Your task to perform on an android device: move an email to a new category in the gmail app Image 0: 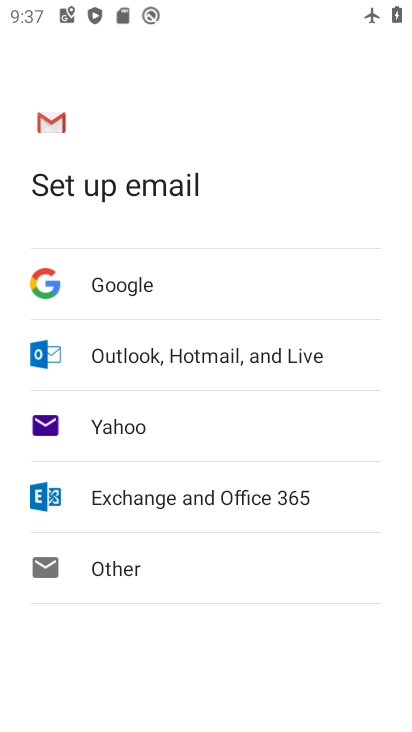
Step 0: press home button
Your task to perform on an android device: move an email to a new category in the gmail app Image 1: 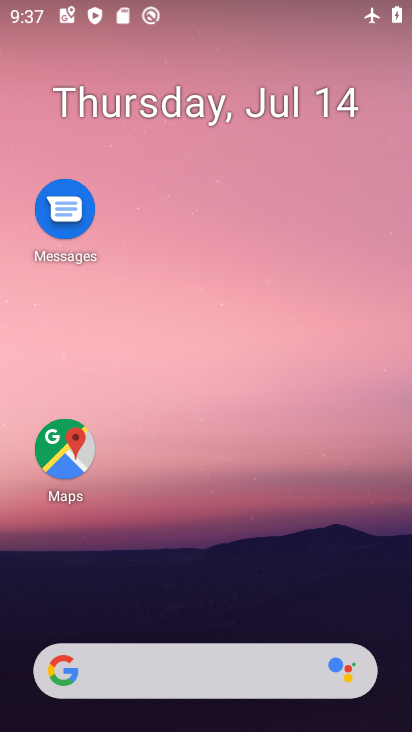
Step 1: drag from (187, 639) to (226, 24)
Your task to perform on an android device: move an email to a new category in the gmail app Image 2: 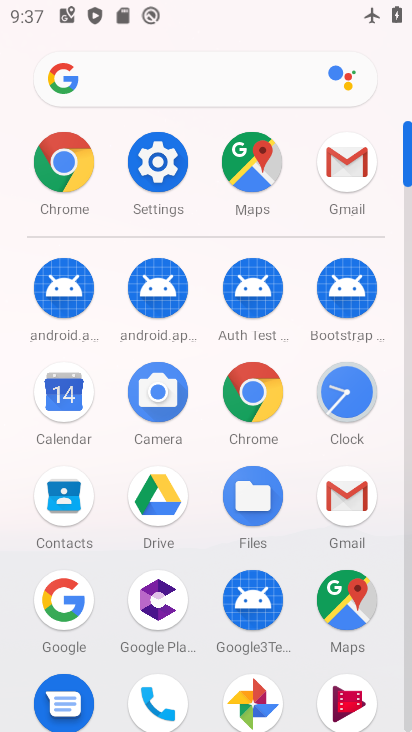
Step 2: click (344, 509)
Your task to perform on an android device: move an email to a new category in the gmail app Image 3: 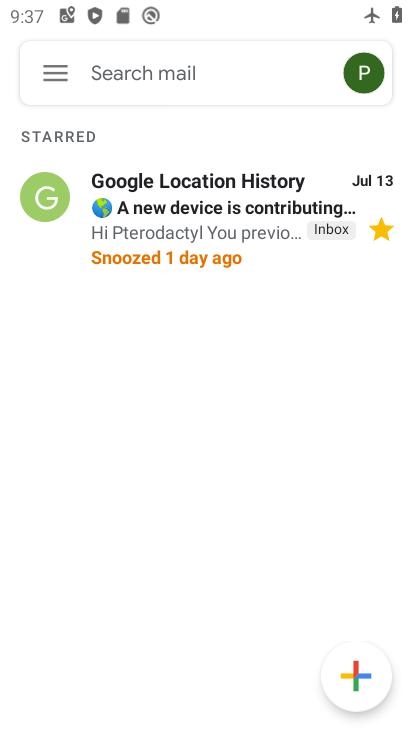
Step 3: click (179, 187)
Your task to perform on an android device: move an email to a new category in the gmail app Image 4: 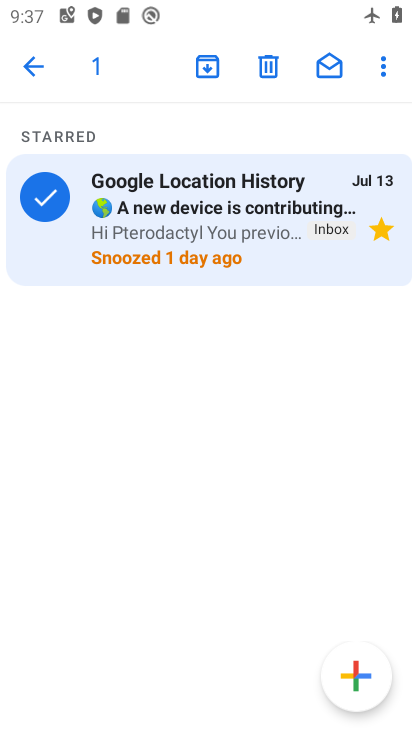
Step 4: click (381, 63)
Your task to perform on an android device: move an email to a new category in the gmail app Image 5: 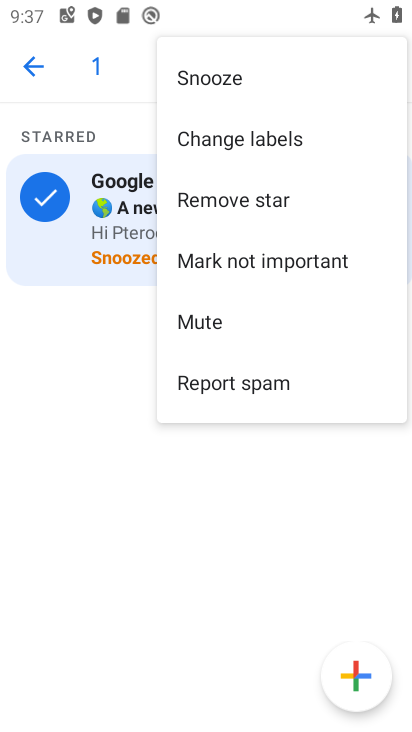
Step 5: click (279, 137)
Your task to perform on an android device: move an email to a new category in the gmail app Image 6: 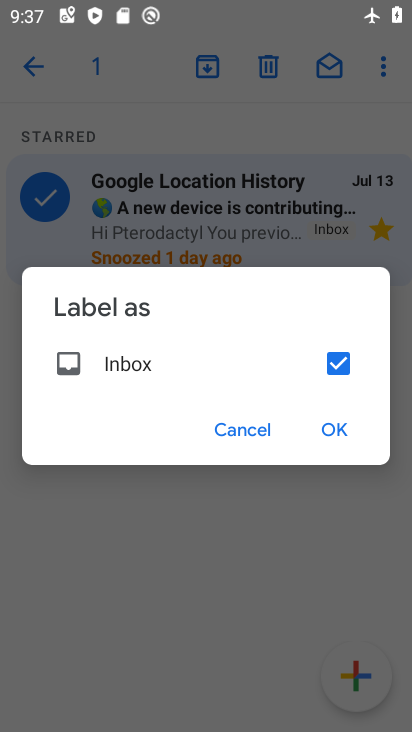
Step 6: click (332, 432)
Your task to perform on an android device: move an email to a new category in the gmail app Image 7: 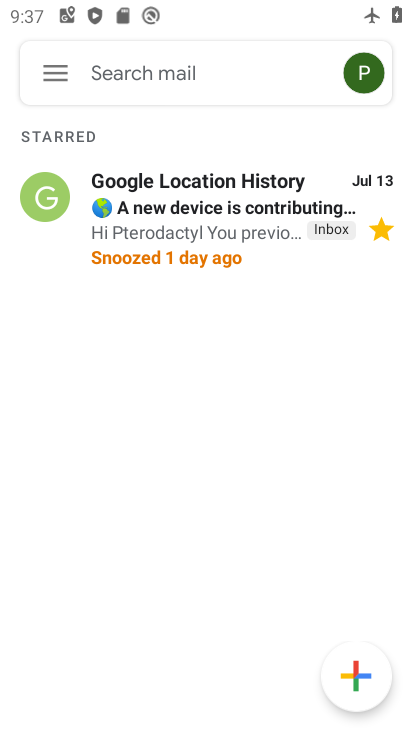
Step 7: task complete